Your task to perform on an android device: Check the news Image 0: 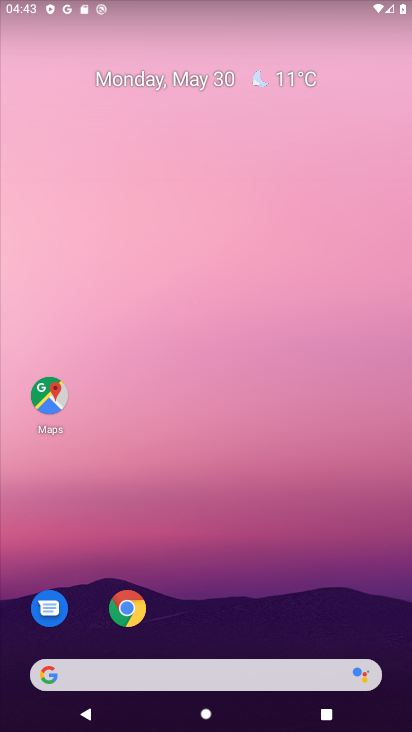
Step 0: drag from (230, 609) to (225, 296)
Your task to perform on an android device: Check the news Image 1: 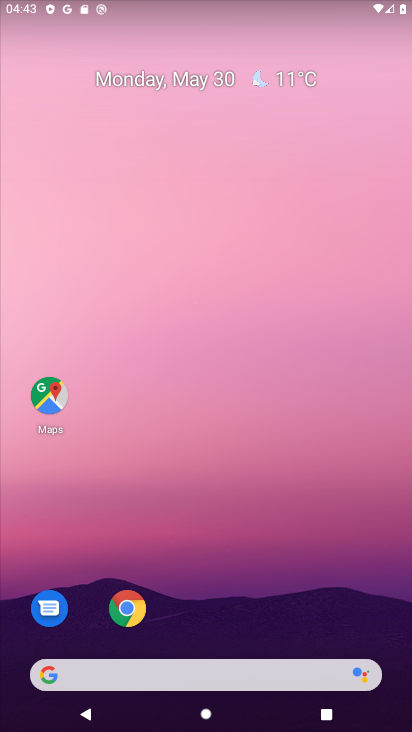
Step 1: click (182, 286)
Your task to perform on an android device: Check the news Image 2: 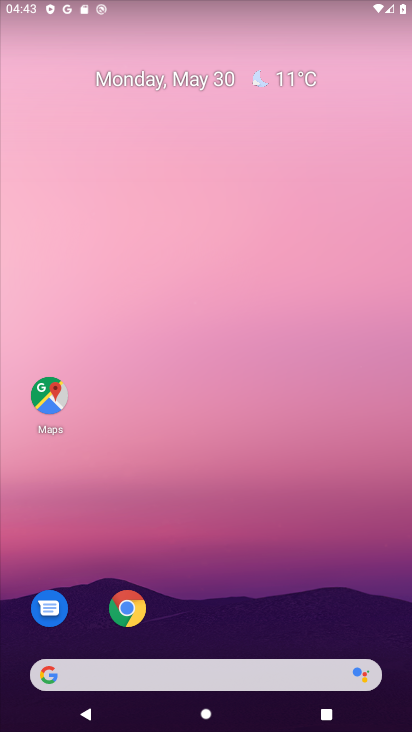
Step 2: drag from (224, 376) to (219, 59)
Your task to perform on an android device: Check the news Image 3: 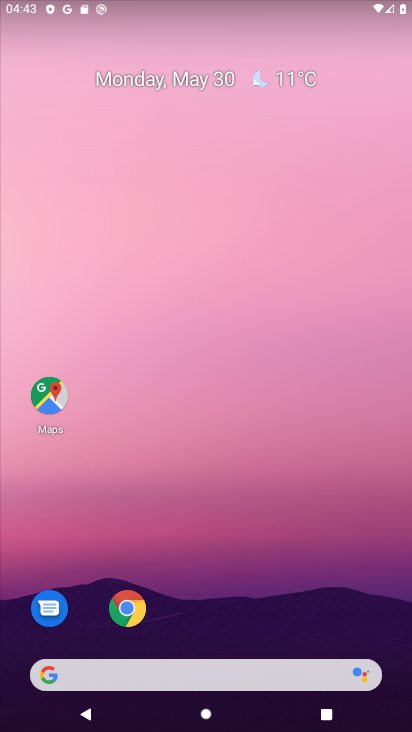
Step 3: drag from (247, 513) to (247, 97)
Your task to perform on an android device: Check the news Image 4: 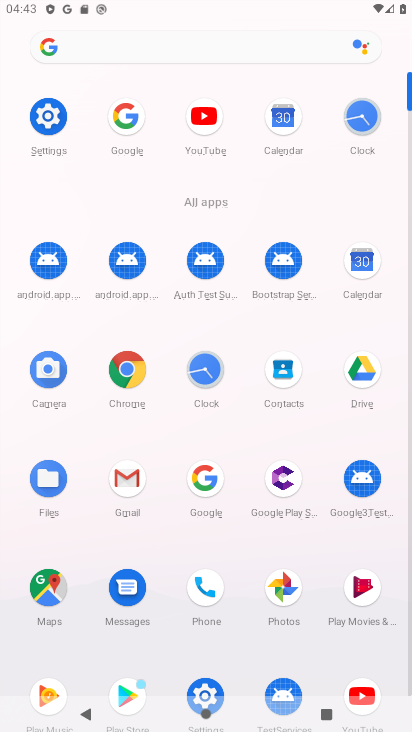
Step 4: click (195, 485)
Your task to perform on an android device: Check the news Image 5: 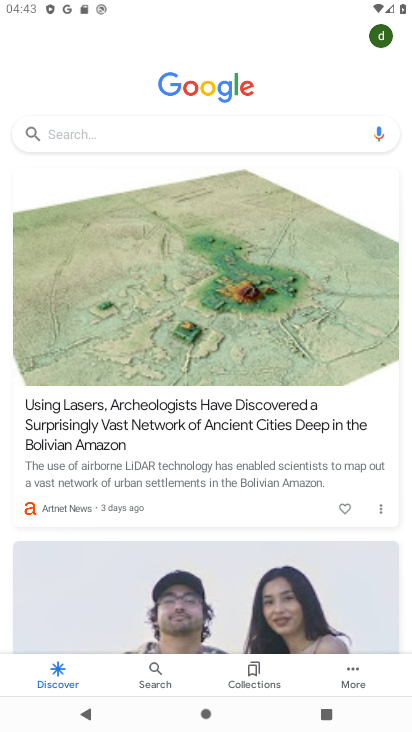
Step 5: drag from (169, 134) to (79, 134)
Your task to perform on an android device: Check the news Image 6: 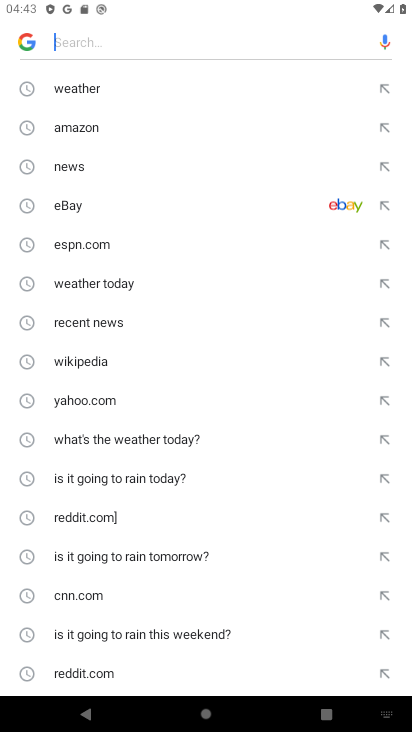
Step 6: click (77, 165)
Your task to perform on an android device: Check the news Image 7: 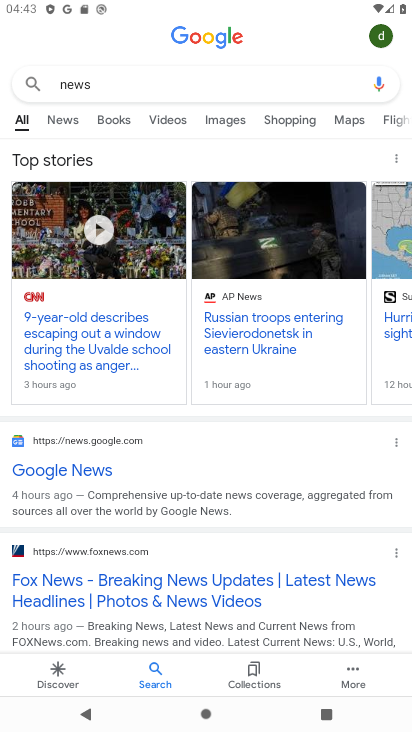
Step 7: task complete